Your task to perform on an android device: toggle notifications settings in the gmail app Image 0: 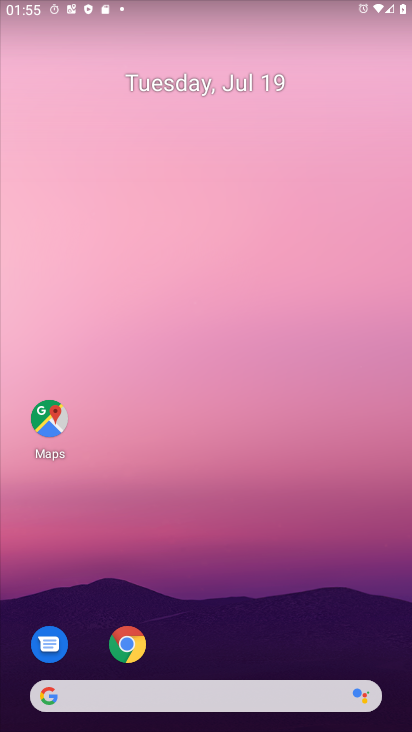
Step 0: drag from (195, 729) to (202, 75)
Your task to perform on an android device: toggle notifications settings in the gmail app Image 1: 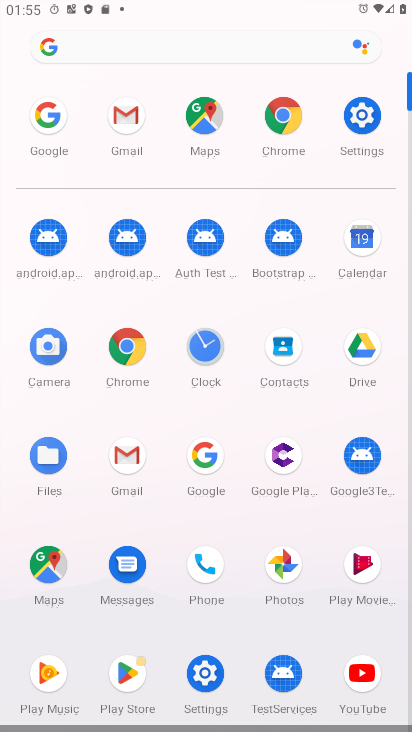
Step 1: click (133, 453)
Your task to perform on an android device: toggle notifications settings in the gmail app Image 2: 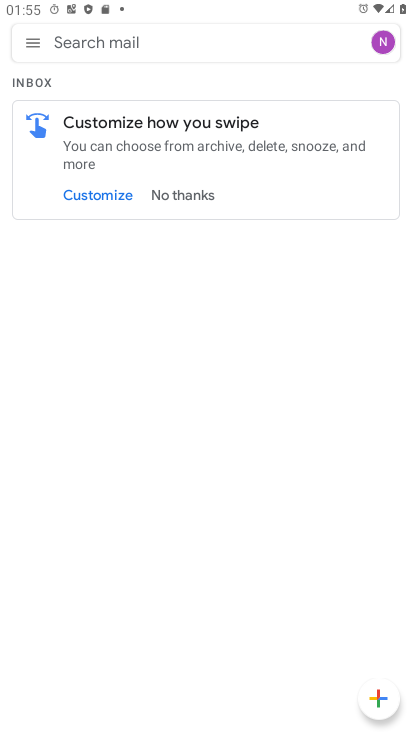
Step 2: click (34, 39)
Your task to perform on an android device: toggle notifications settings in the gmail app Image 3: 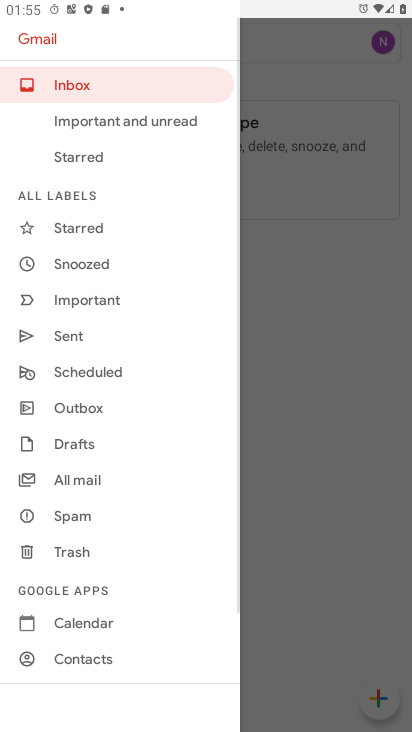
Step 3: drag from (85, 658) to (71, 398)
Your task to perform on an android device: toggle notifications settings in the gmail app Image 4: 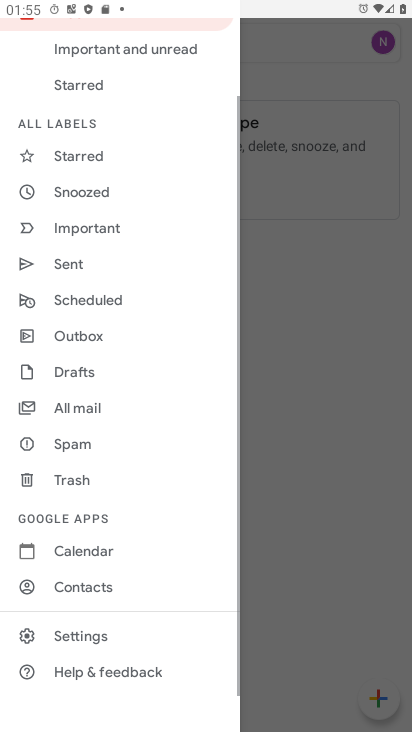
Step 4: click (74, 637)
Your task to perform on an android device: toggle notifications settings in the gmail app Image 5: 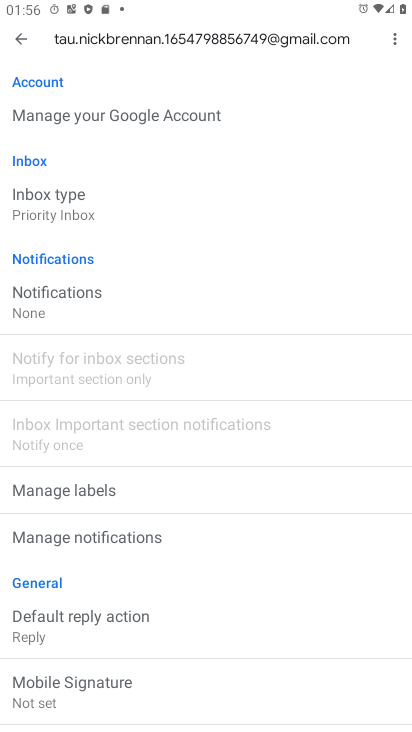
Step 5: click (62, 287)
Your task to perform on an android device: toggle notifications settings in the gmail app Image 6: 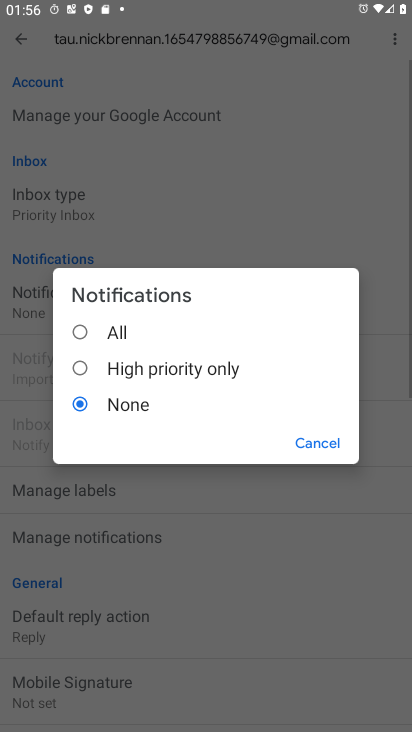
Step 6: click (79, 326)
Your task to perform on an android device: toggle notifications settings in the gmail app Image 7: 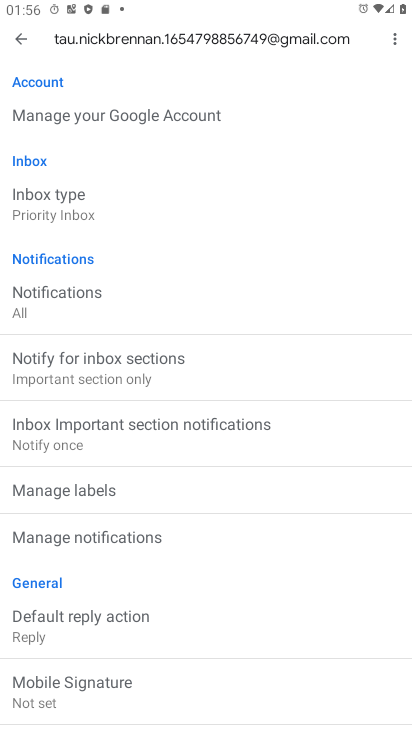
Step 7: task complete